Your task to perform on an android device: toggle airplane mode Image 0: 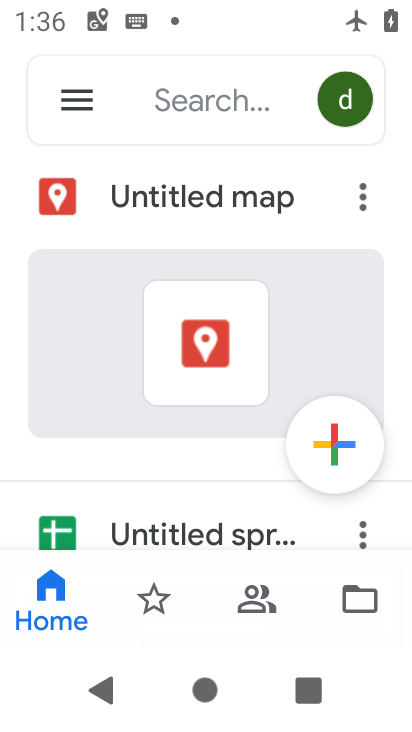
Step 0: press home button
Your task to perform on an android device: toggle airplane mode Image 1: 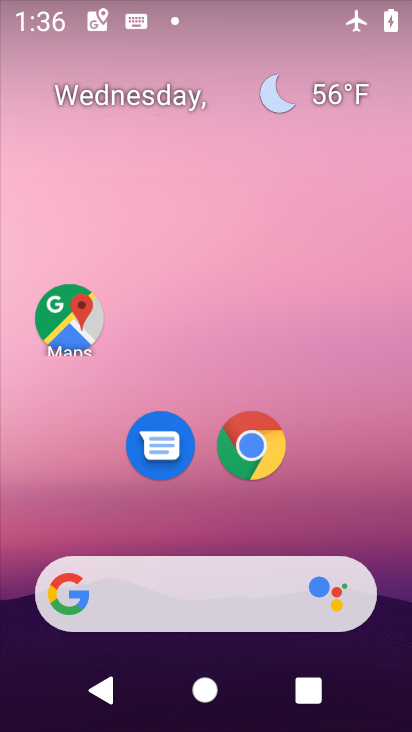
Step 1: drag from (195, 535) to (153, 12)
Your task to perform on an android device: toggle airplane mode Image 2: 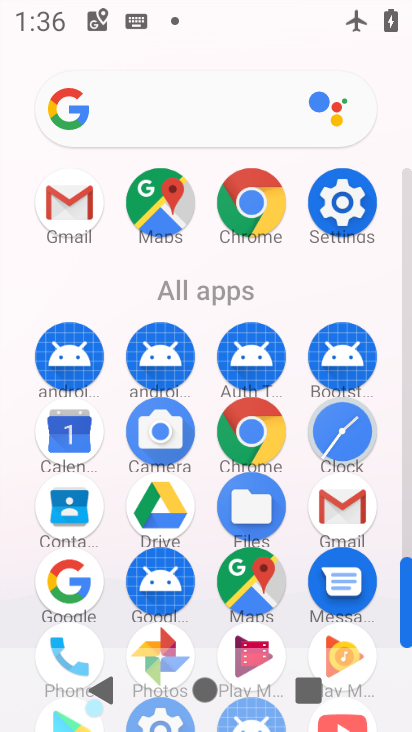
Step 2: click (336, 222)
Your task to perform on an android device: toggle airplane mode Image 3: 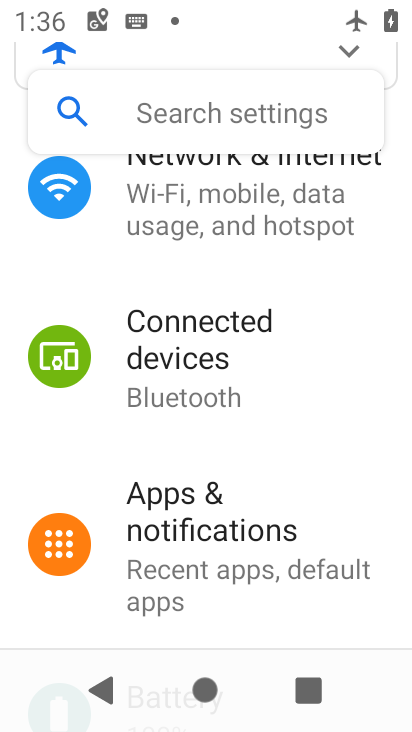
Step 3: click (234, 220)
Your task to perform on an android device: toggle airplane mode Image 4: 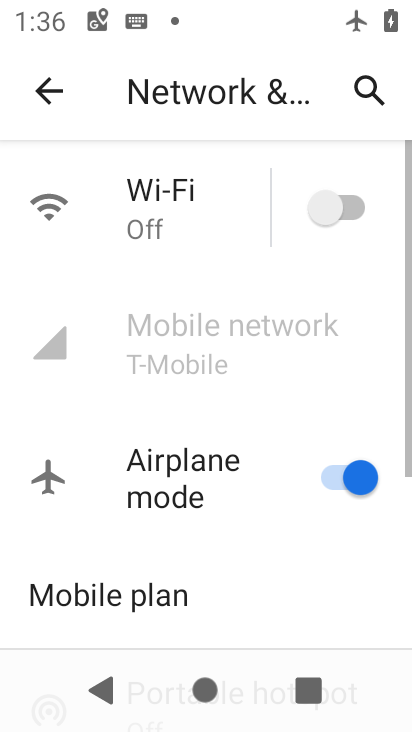
Step 4: click (356, 475)
Your task to perform on an android device: toggle airplane mode Image 5: 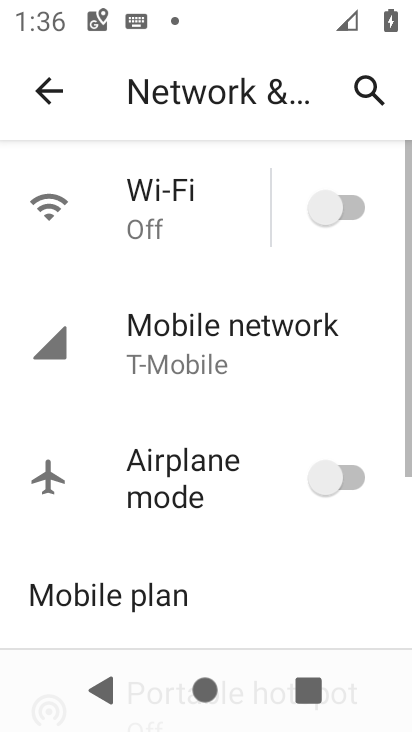
Step 5: task complete